Your task to perform on an android device: Open notification settings Image 0: 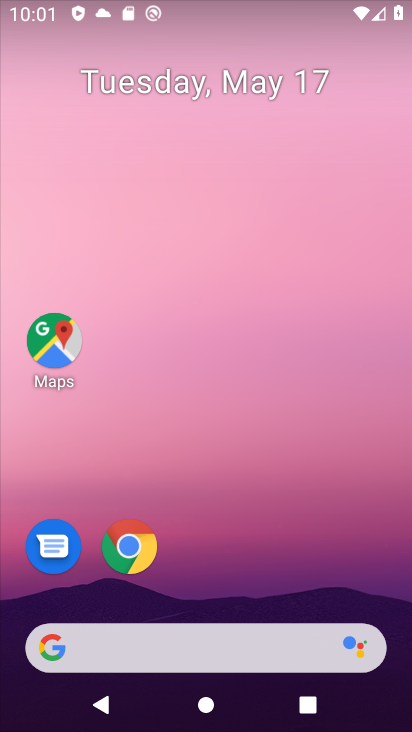
Step 0: drag from (218, 343) to (195, 411)
Your task to perform on an android device: Open notification settings Image 1: 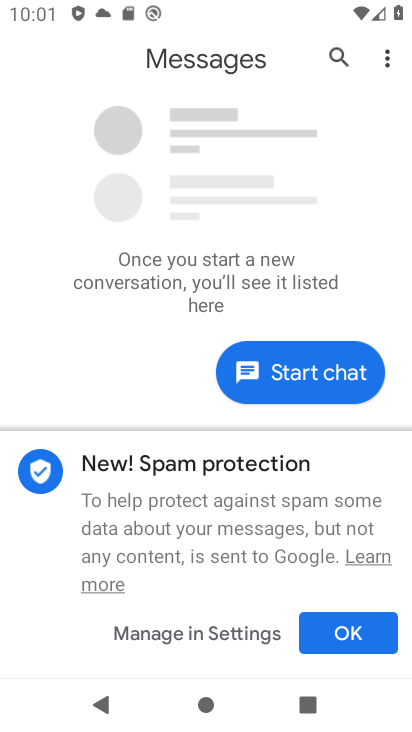
Step 1: click (202, 401)
Your task to perform on an android device: Open notification settings Image 2: 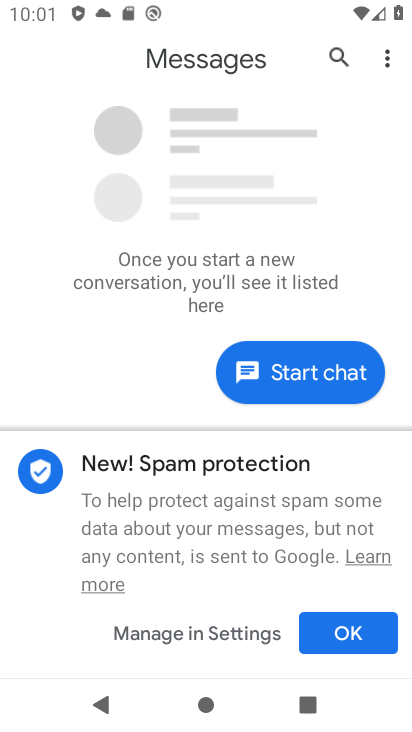
Step 2: press home button
Your task to perform on an android device: Open notification settings Image 3: 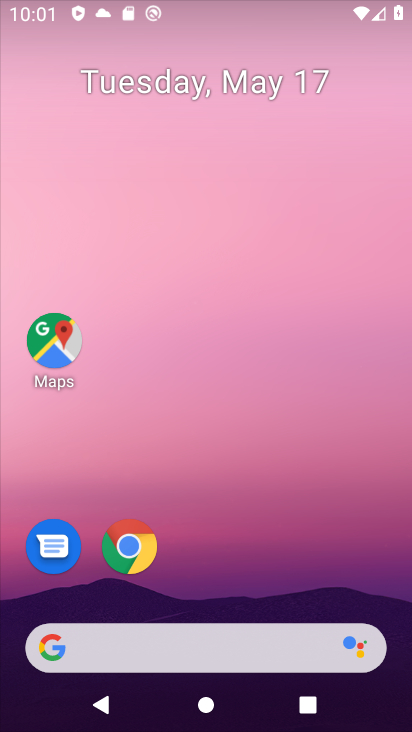
Step 3: drag from (290, 542) to (293, 212)
Your task to perform on an android device: Open notification settings Image 4: 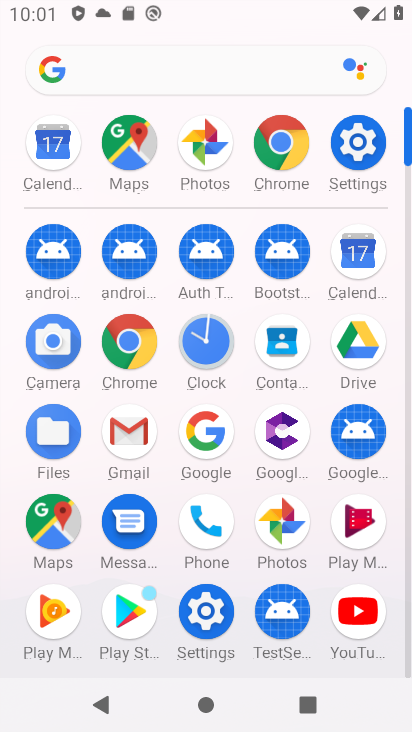
Step 4: click (355, 132)
Your task to perform on an android device: Open notification settings Image 5: 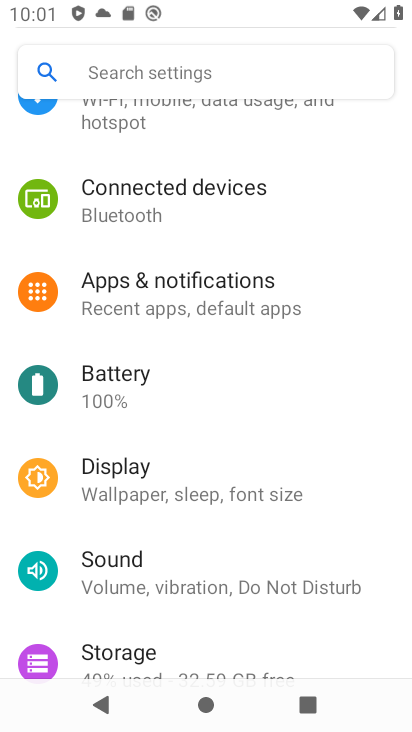
Step 5: click (224, 280)
Your task to perform on an android device: Open notification settings Image 6: 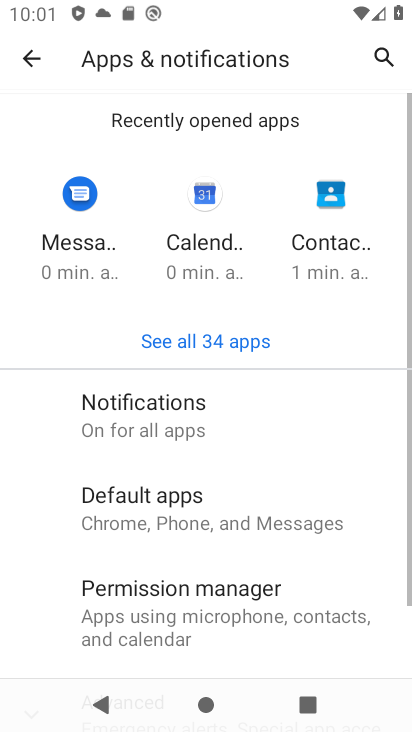
Step 6: click (188, 410)
Your task to perform on an android device: Open notification settings Image 7: 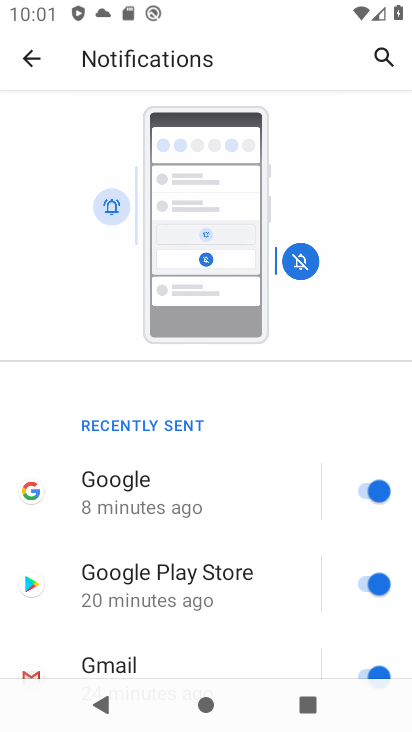
Step 7: task complete